Your task to perform on an android device: turn on bluetooth scan Image 0: 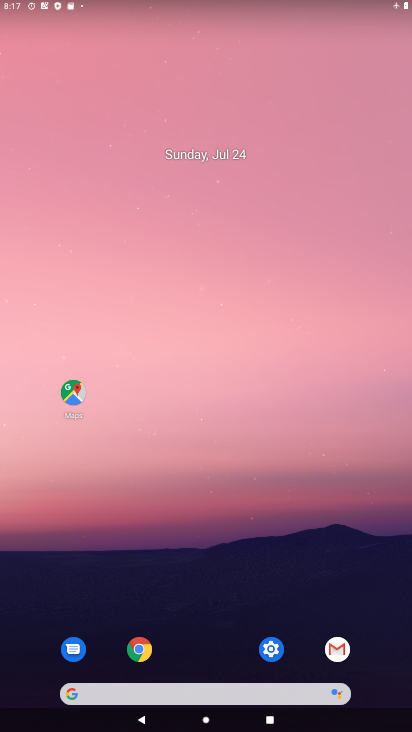
Step 0: click (269, 649)
Your task to perform on an android device: turn on bluetooth scan Image 1: 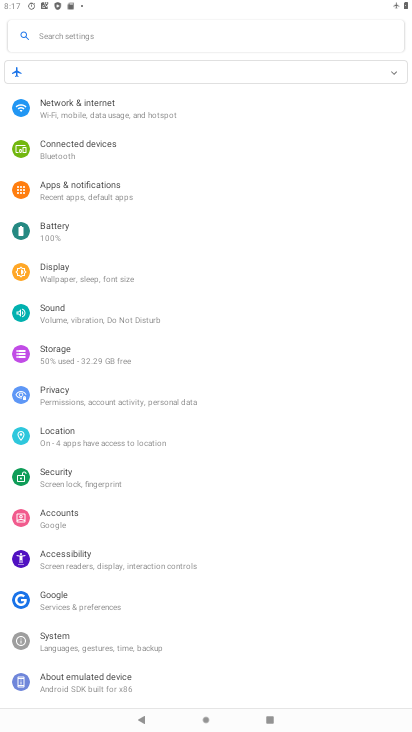
Step 1: click (83, 447)
Your task to perform on an android device: turn on bluetooth scan Image 2: 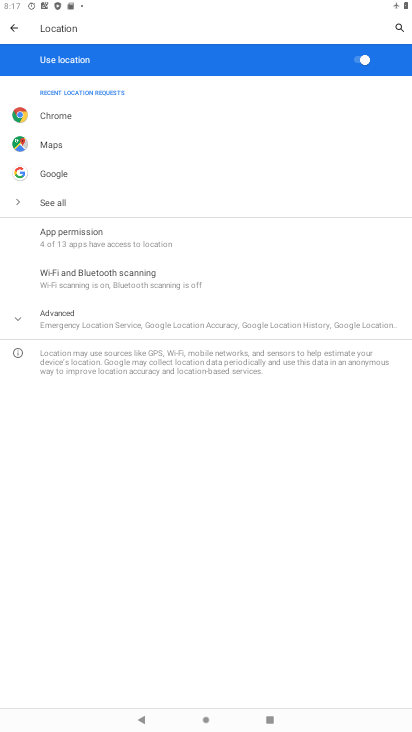
Step 2: click (180, 293)
Your task to perform on an android device: turn on bluetooth scan Image 3: 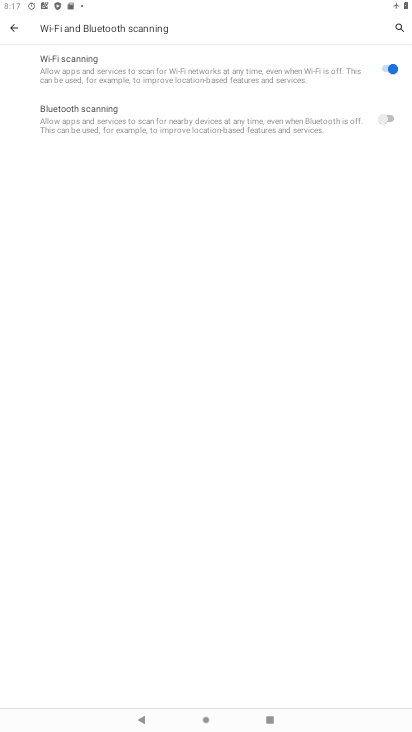
Step 3: click (372, 121)
Your task to perform on an android device: turn on bluetooth scan Image 4: 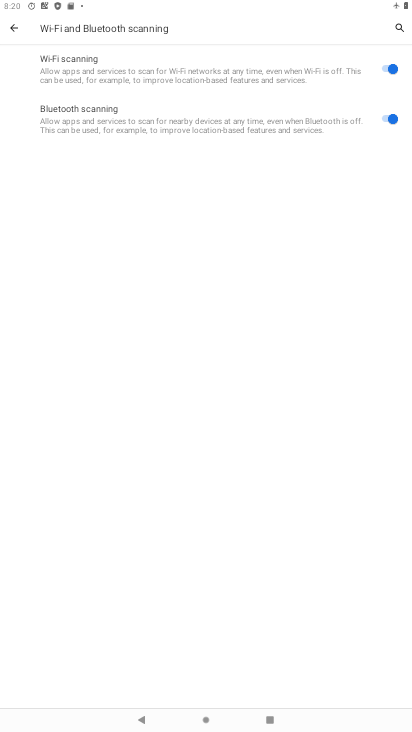
Step 4: task complete